Your task to perform on an android device: Open Chrome and go to the settings page Image 0: 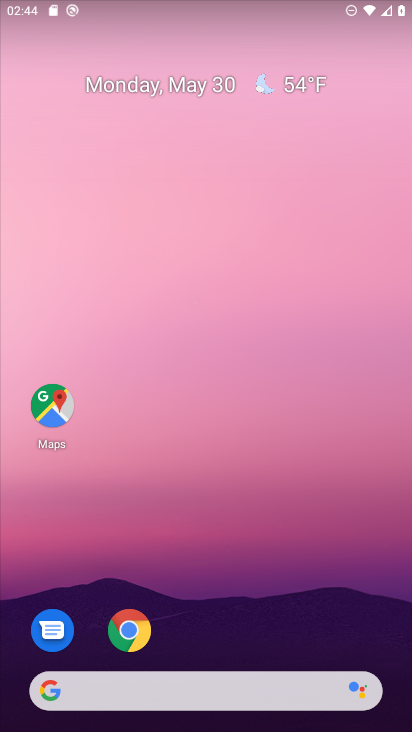
Step 0: press home button
Your task to perform on an android device: Open Chrome and go to the settings page Image 1: 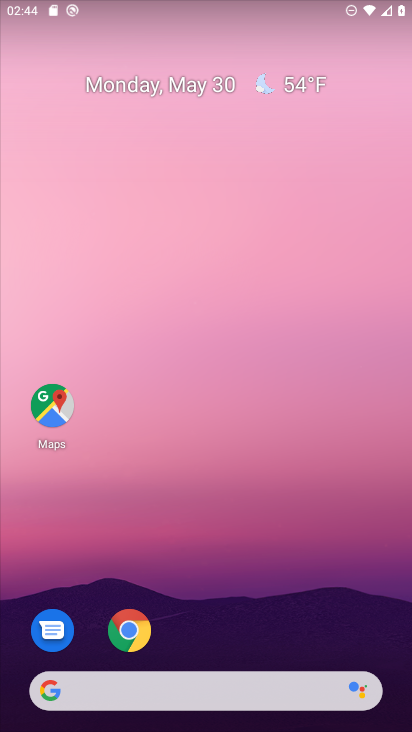
Step 1: click (134, 630)
Your task to perform on an android device: Open Chrome and go to the settings page Image 2: 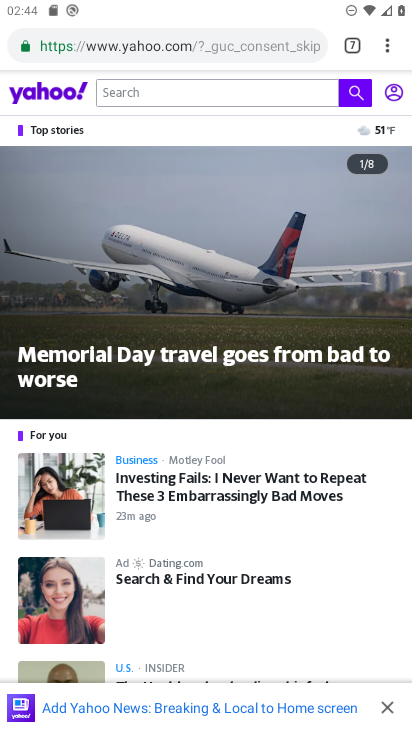
Step 2: task complete